Your task to perform on an android device: Open network settings Image 0: 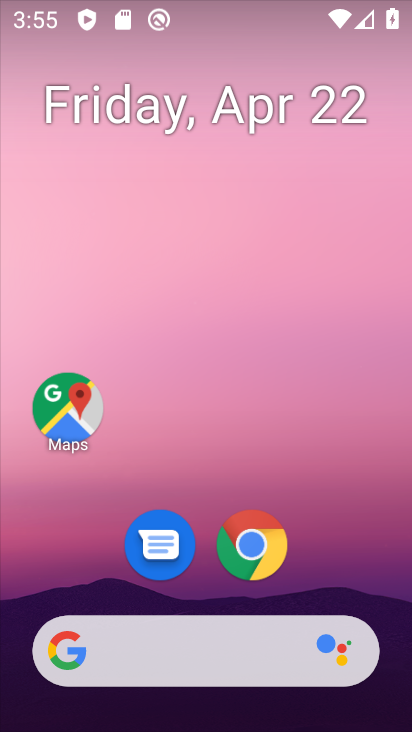
Step 0: drag from (385, 245) to (368, 60)
Your task to perform on an android device: Open network settings Image 1: 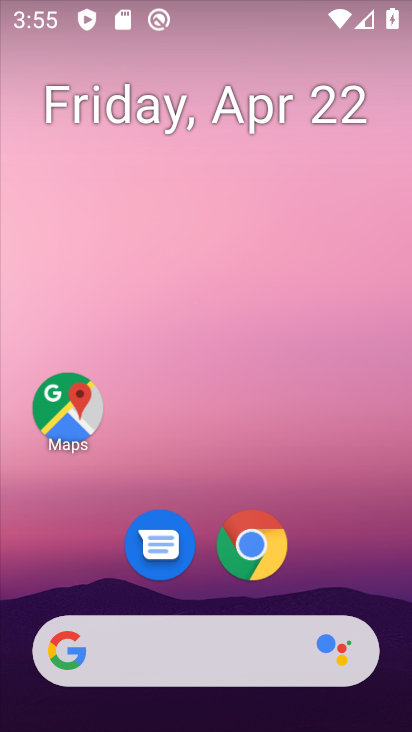
Step 1: drag from (349, 334) to (297, 33)
Your task to perform on an android device: Open network settings Image 2: 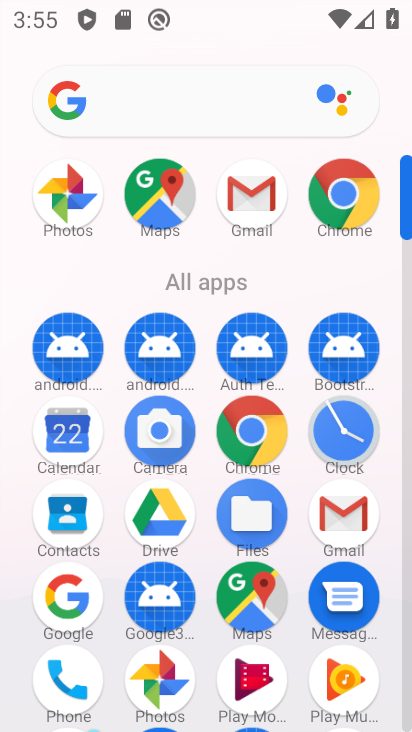
Step 2: drag from (382, 540) to (397, 246)
Your task to perform on an android device: Open network settings Image 3: 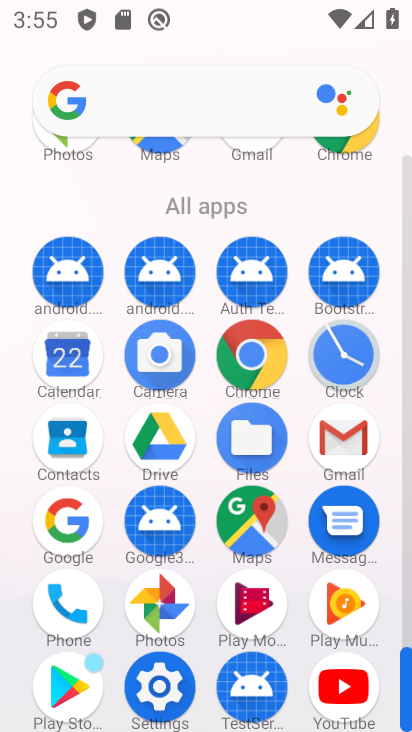
Step 3: drag from (390, 517) to (386, 305)
Your task to perform on an android device: Open network settings Image 4: 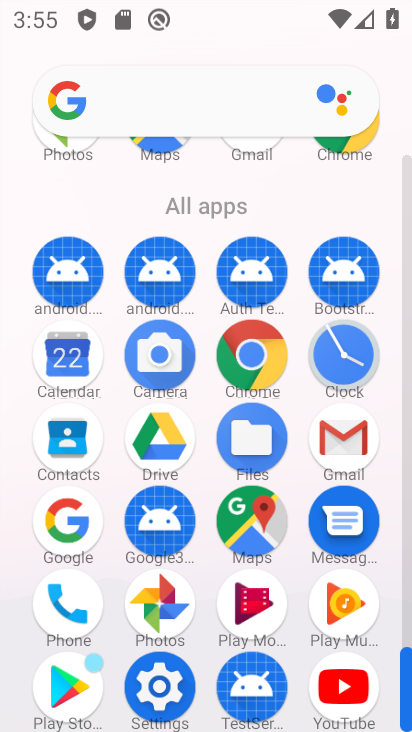
Step 4: drag from (386, 573) to (371, 288)
Your task to perform on an android device: Open network settings Image 5: 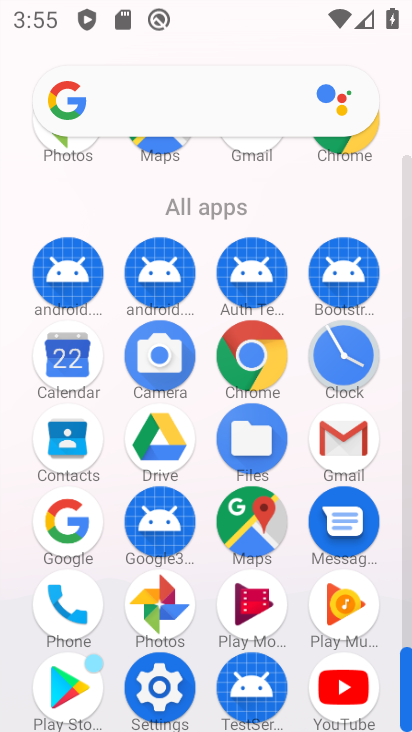
Step 5: click (150, 692)
Your task to perform on an android device: Open network settings Image 6: 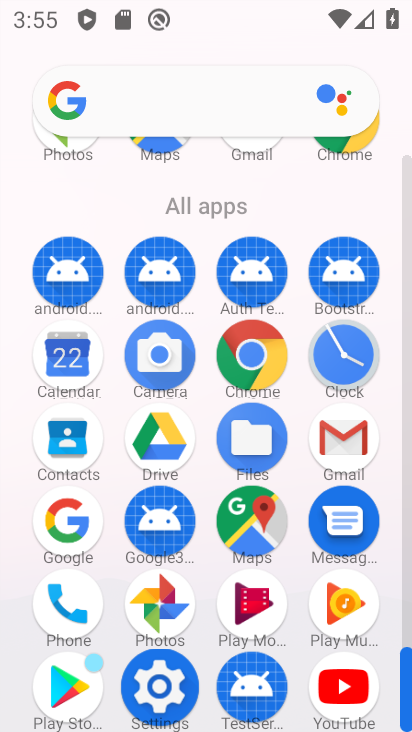
Step 6: click (150, 691)
Your task to perform on an android device: Open network settings Image 7: 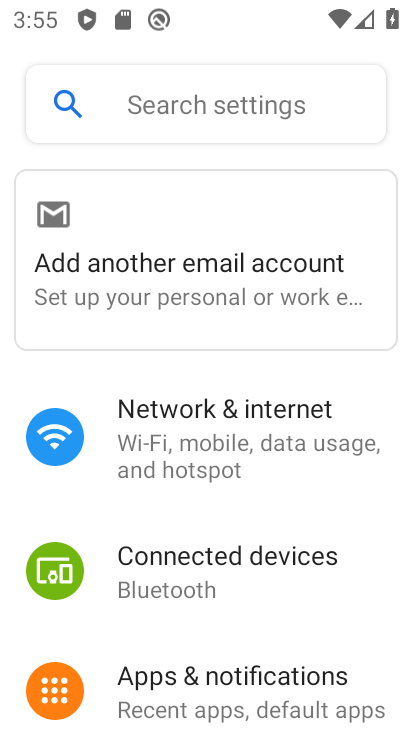
Step 7: drag from (261, 614) to (262, 307)
Your task to perform on an android device: Open network settings Image 8: 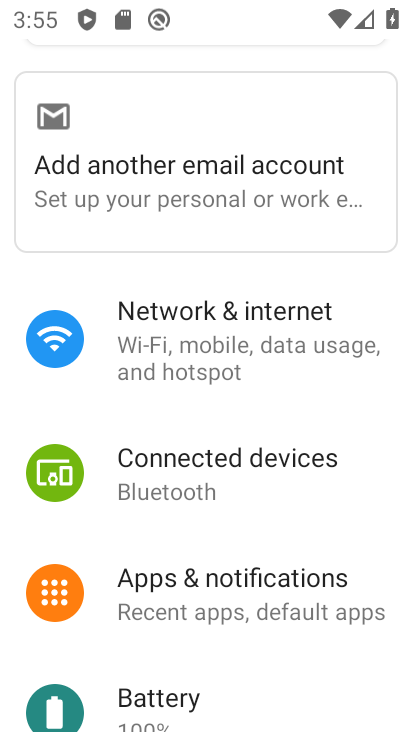
Step 8: click (229, 316)
Your task to perform on an android device: Open network settings Image 9: 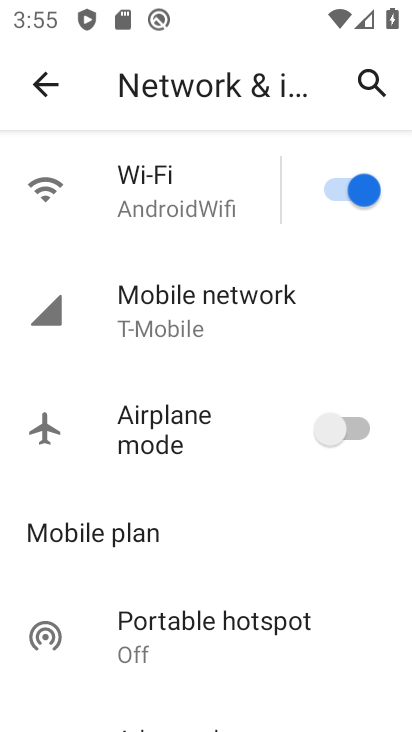
Step 9: click (196, 327)
Your task to perform on an android device: Open network settings Image 10: 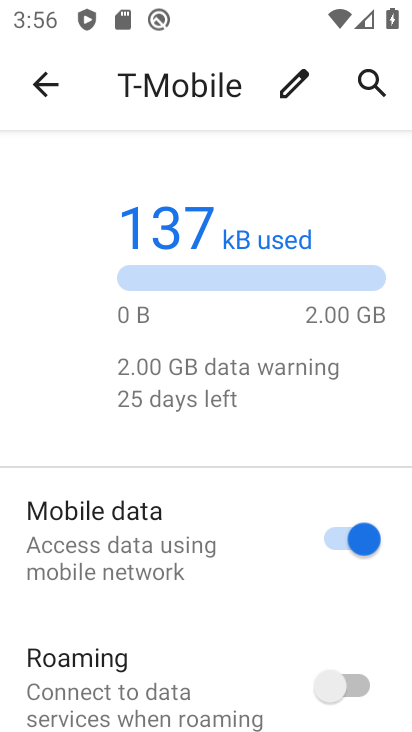
Step 10: task complete